Your task to perform on an android device: Find coffee shops on Maps Image 0: 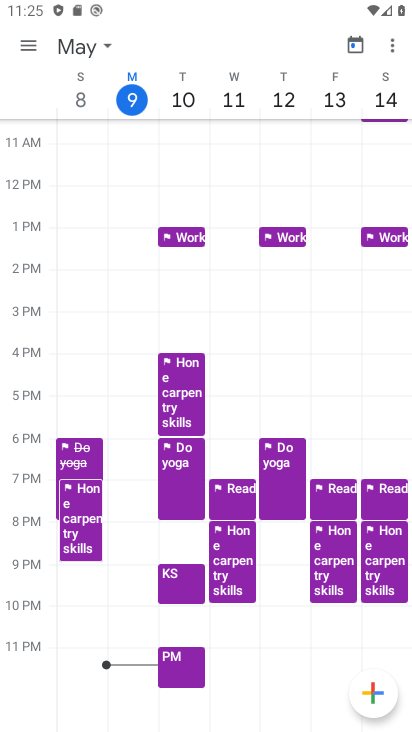
Step 0: press back button
Your task to perform on an android device: Find coffee shops on Maps Image 1: 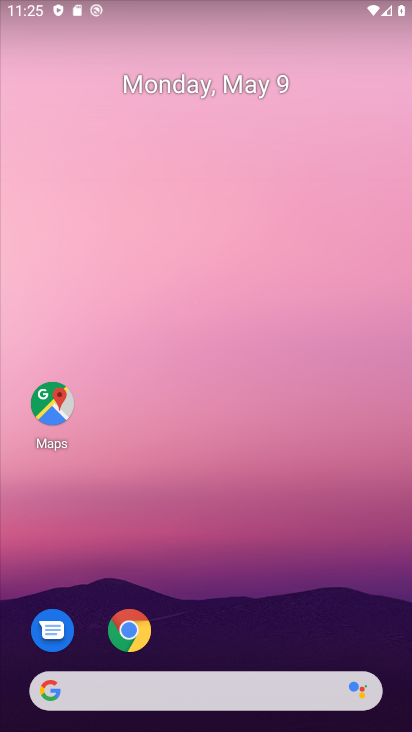
Step 1: drag from (209, 562) to (158, 26)
Your task to perform on an android device: Find coffee shops on Maps Image 2: 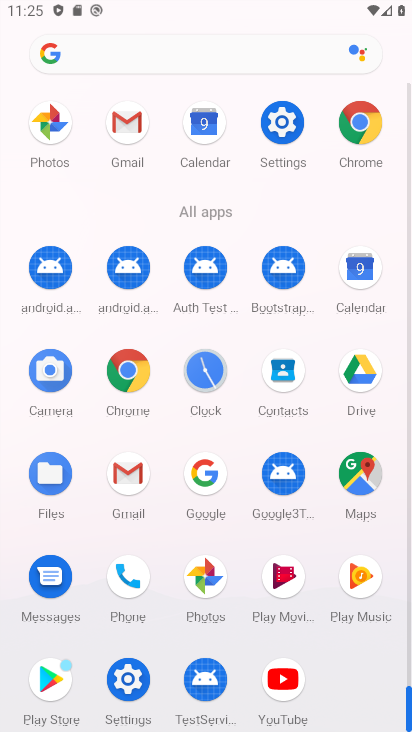
Step 2: click (359, 472)
Your task to perform on an android device: Find coffee shops on Maps Image 3: 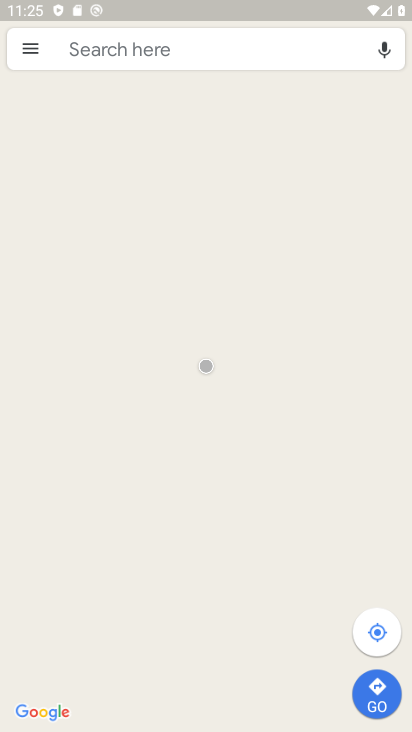
Step 3: click (180, 55)
Your task to perform on an android device: Find coffee shops on Maps Image 4: 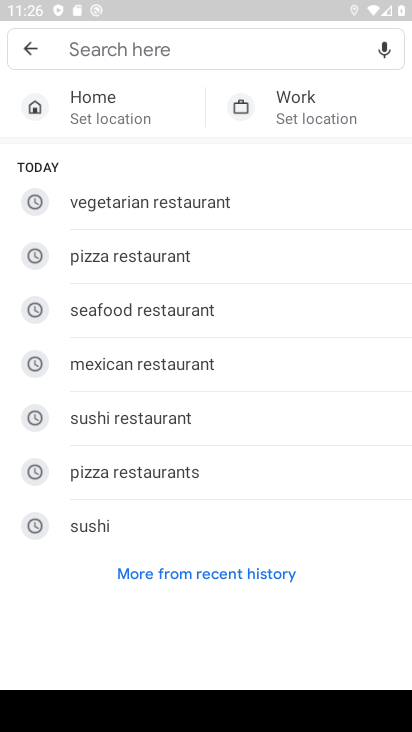
Step 4: type "coffee shops"
Your task to perform on an android device: Find coffee shops on Maps Image 5: 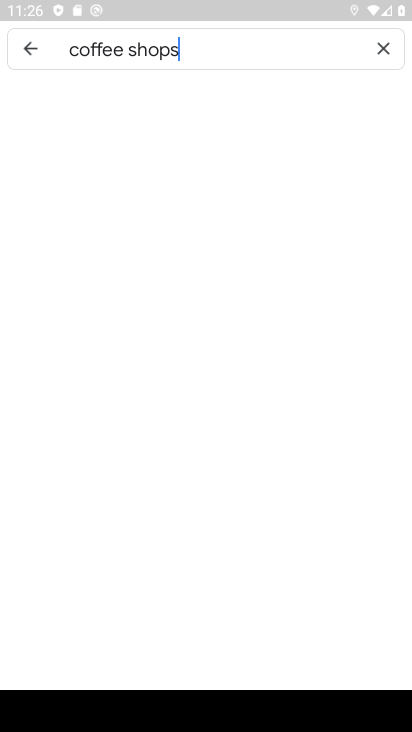
Step 5: type ""
Your task to perform on an android device: Find coffee shops on Maps Image 6: 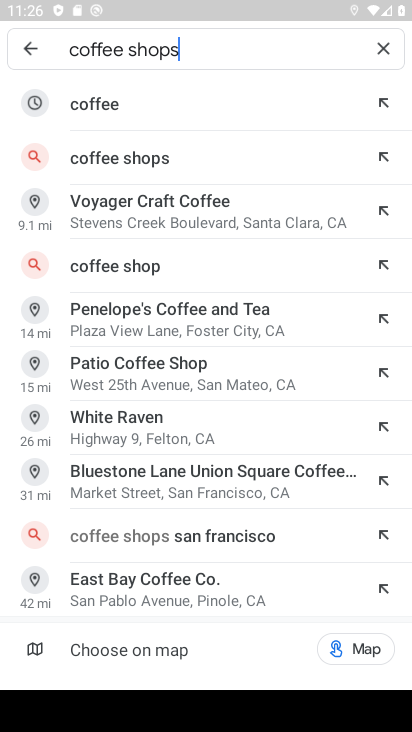
Step 6: click (114, 144)
Your task to perform on an android device: Find coffee shops on Maps Image 7: 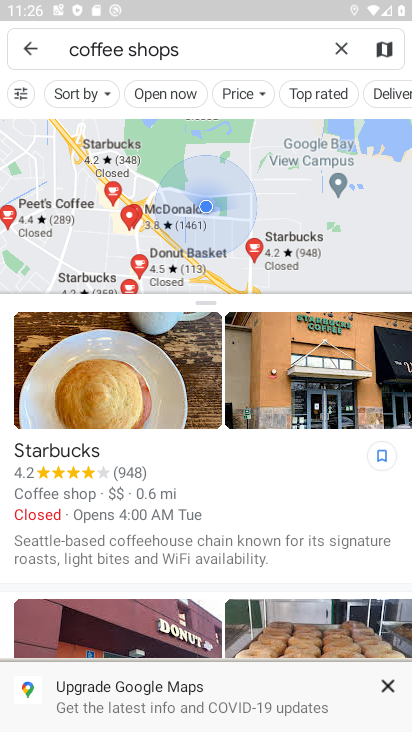
Step 7: task complete